Your task to perform on an android device: refresh tabs in the chrome app Image 0: 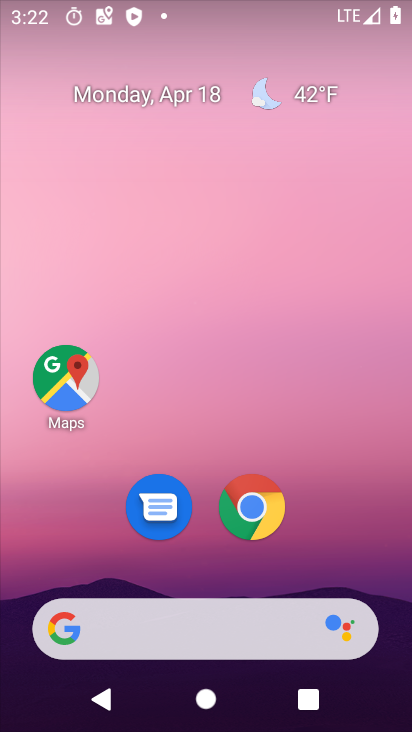
Step 0: click (272, 504)
Your task to perform on an android device: refresh tabs in the chrome app Image 1: 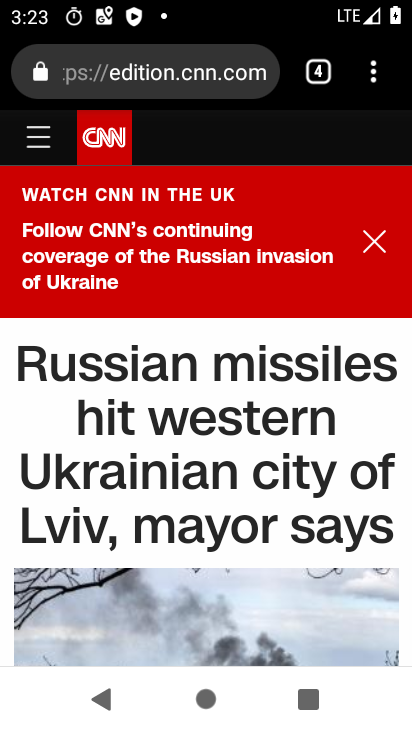
Step 1: click (370, 83)
Your task to perform on an android device: refresh tabs in the chrome app Image 2: 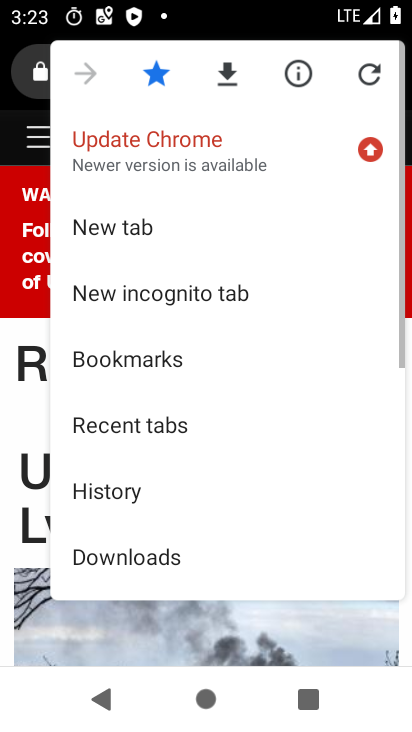
Step 2: click (378, 74)
Your task to perform on an android device: refresh tabs in the chrome app Image 3: 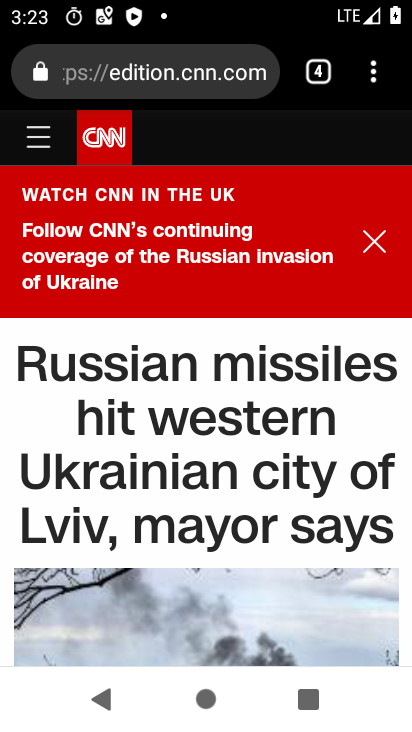
Step 3: task complete